Your task to perform on an android device: Go to location settings Image 0: 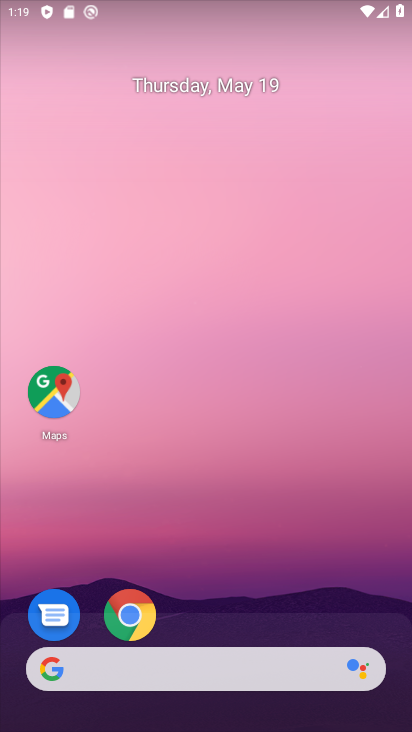
Step 0: drag from (217, 563) to (292, 0)
Your task to perform on an android device: Go to location settings Image 1: 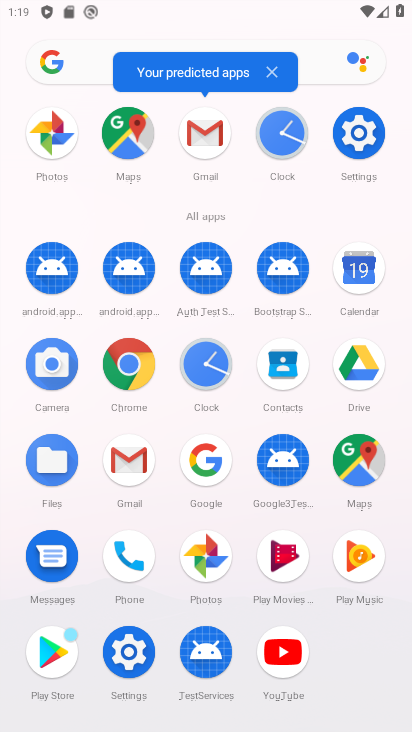
Step 1: click (359, 130)
Your task to perform on an android device: Go to location settings Image 2: 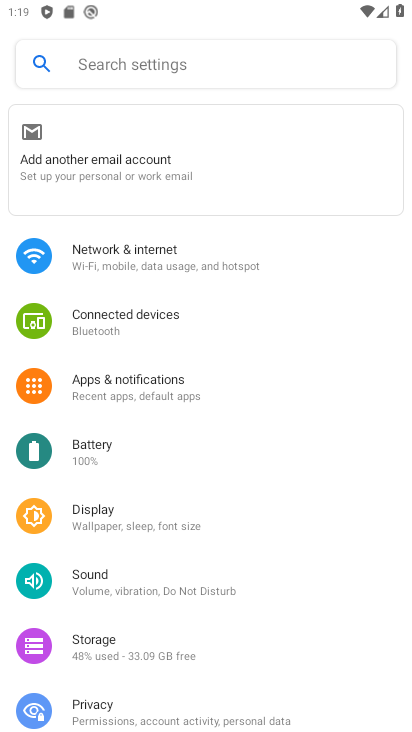
Step 2: drag from (135, 651) to (138, 249)
Your task to perform on an android device: Go to location settings Image 3: 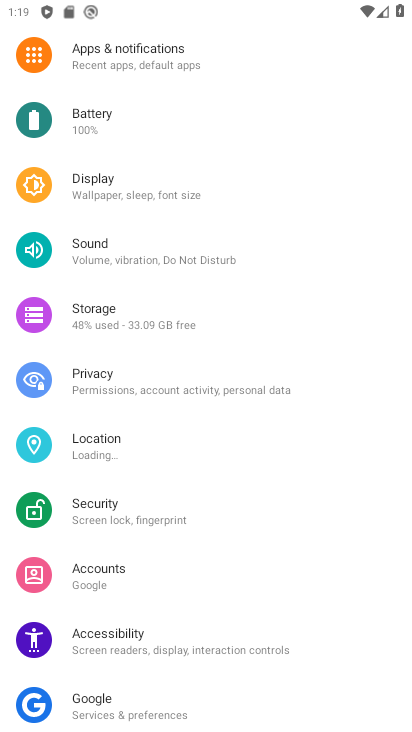
Step 3: click (98, 449)
Your task to perform on an android device: Go to location settings Image 4: 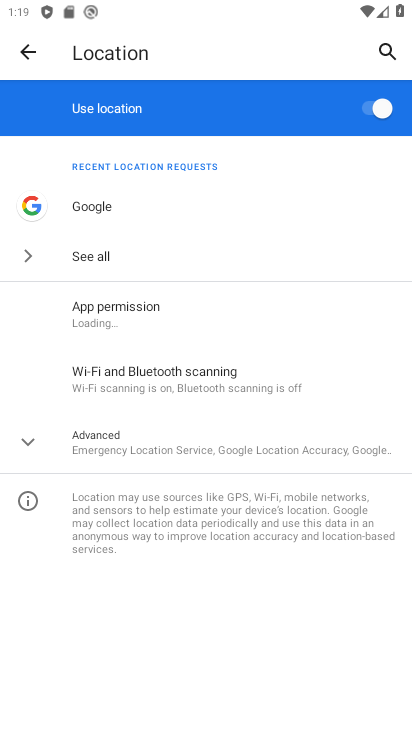
Step 4: task complete